Your task to perform on an android device: Go to Google maps Image 0: 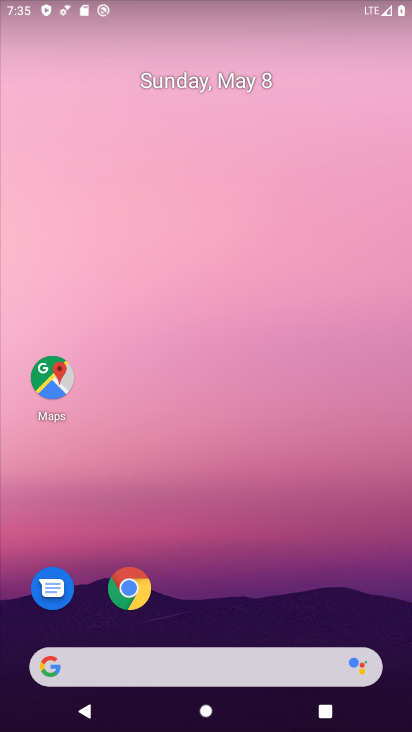
Step 0: drag from (213, 673) to (347, 94)
Your task to perform on an android device: Go to Google maps Image 1: 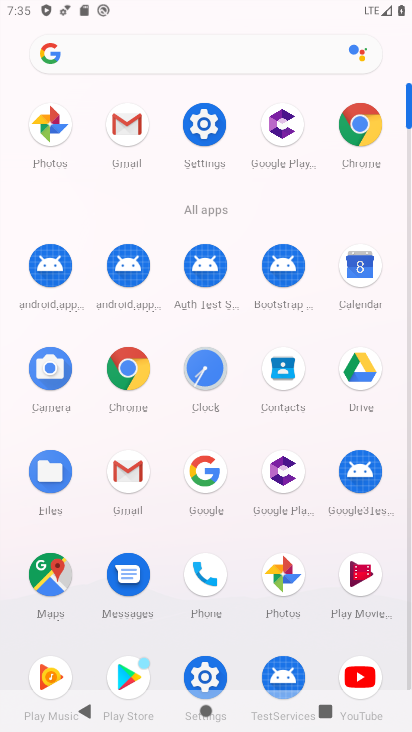
Step 1: click (48, 574)
Your task to perform on an android device: Go to Google maps Image 2: 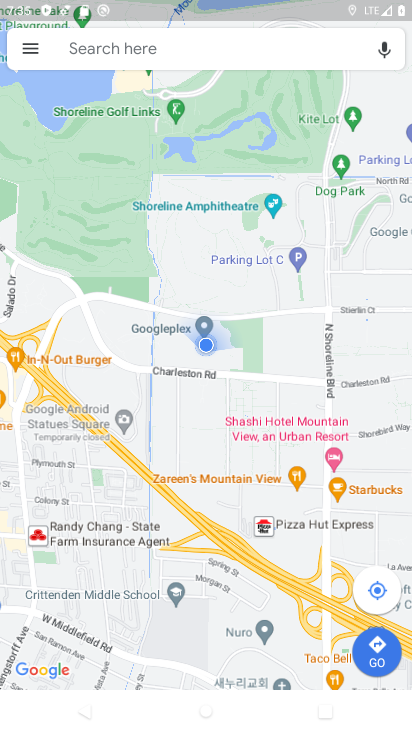
Step 2: task complete